Your task to perform on an android device: turn off airplane mode Image 0: 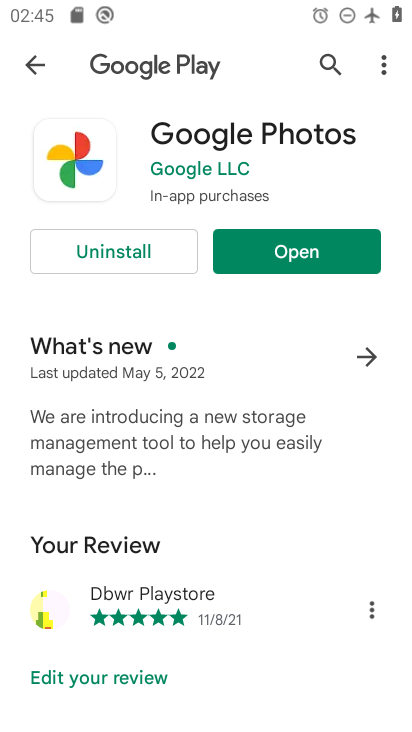
Step 0: press home button
Your task to perform on an android device: turn off airplane mode Image 1: 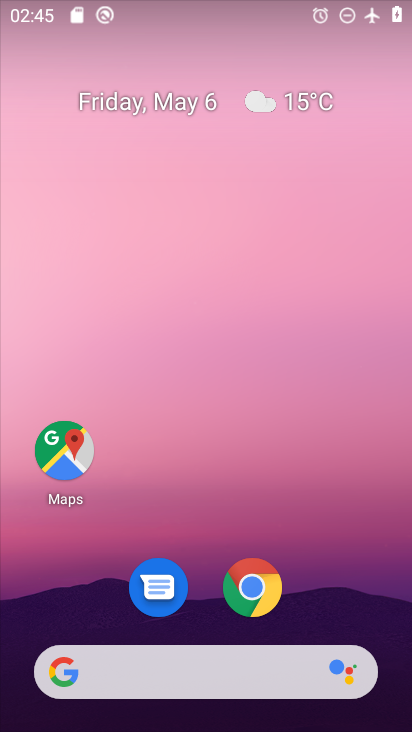
Step 1: drag from (356, 613) to (242, 45)
Your task to perform on an android device: turn off airplane mode Image 2: 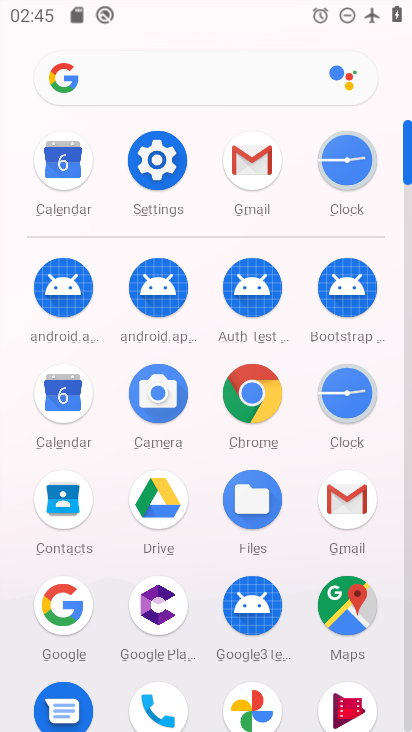
Step 2: click (161, 177)
Your task to perform on an android device: turn off airplane mode Image 3: 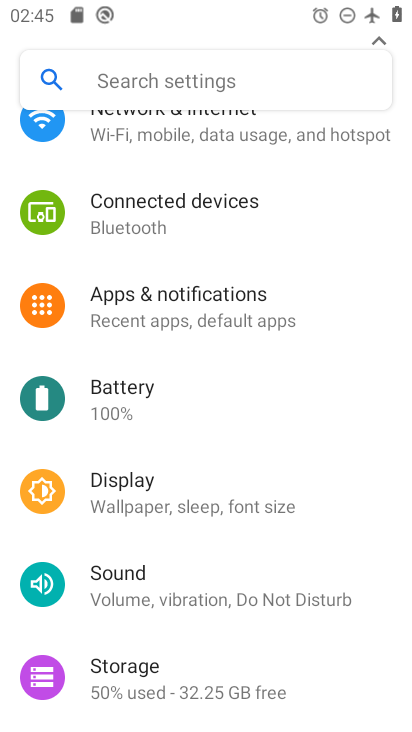
Step 3: click (254, 140)
Your task to perform on an android device: turn off airplane mode Image 4: 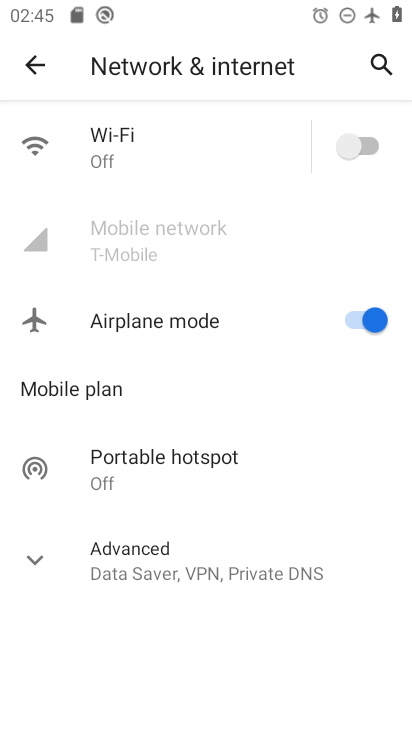
Step 4: click (366, 324)
Your task to perform on an android device: turn off airplane mode Image 5: 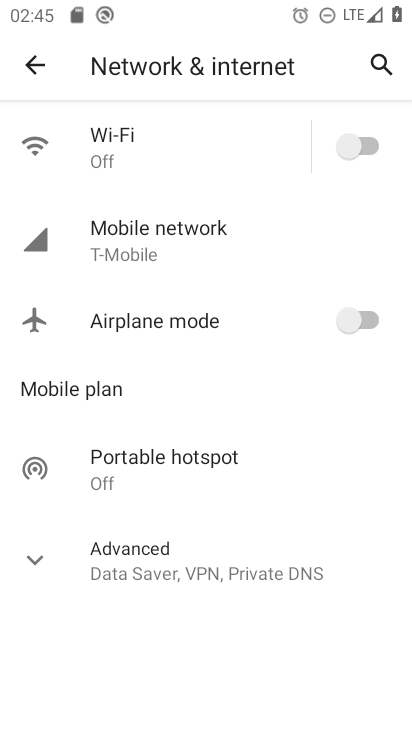
Step 5: task complete